Your task to perform on an android device: What's the weather today? Image 0: 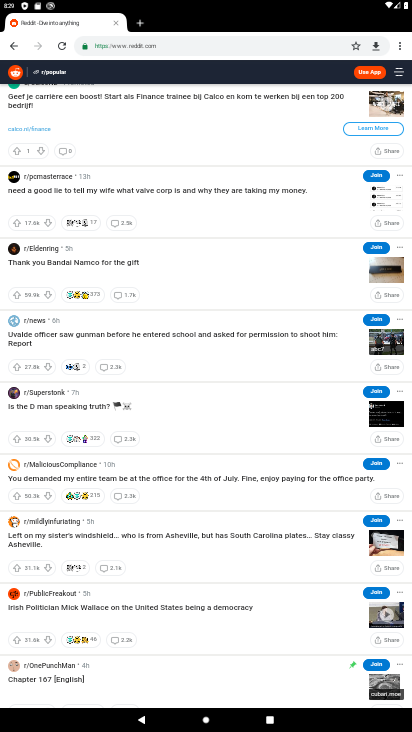
Step 0: press home button
Your task to perform on an android device: What's the weather today? Image 1: 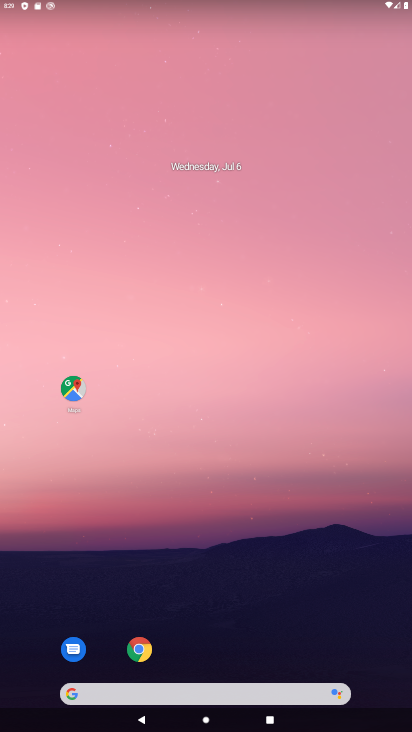
Step 1: drag from (215, 658) to (252, 77)
Your task to perform on an android device: What's the weather today? Image 2: 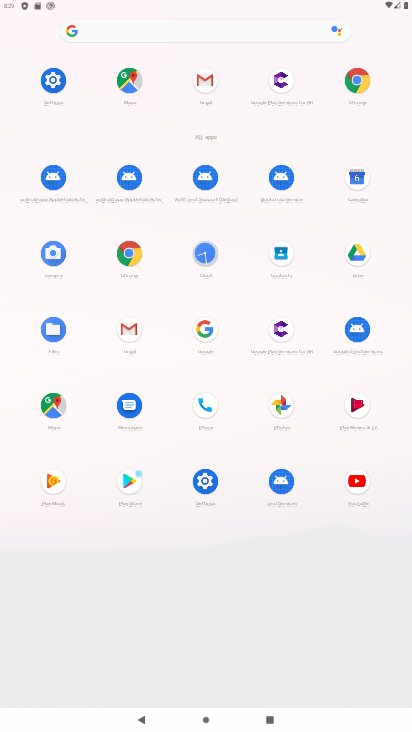
Step 2: press back button
Your task to perform on an android device: What's the weather today? Image 3: 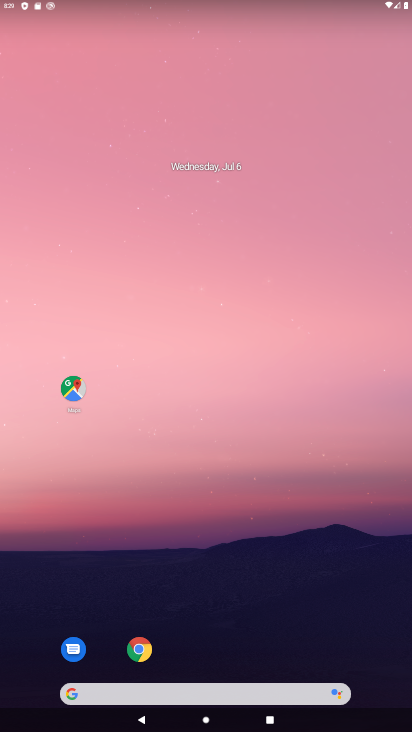
Step 3: drag from (18, 277) to (366, 279)
Your task to perform on an android device: What's the weather today? Image 4: 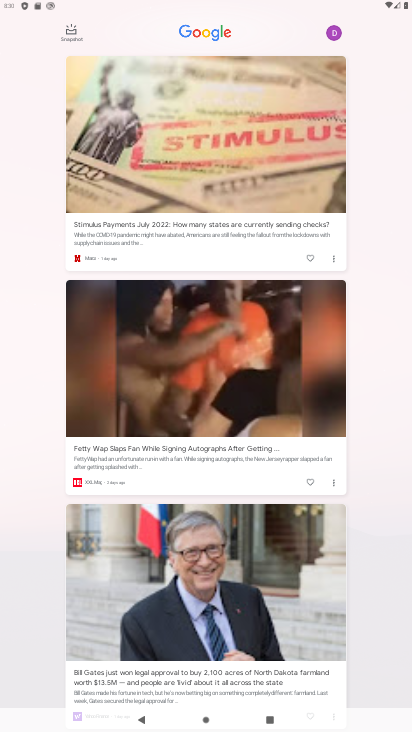
Step 4: press back button
Your task to perform on an android device: What's the weather today? Image 5: 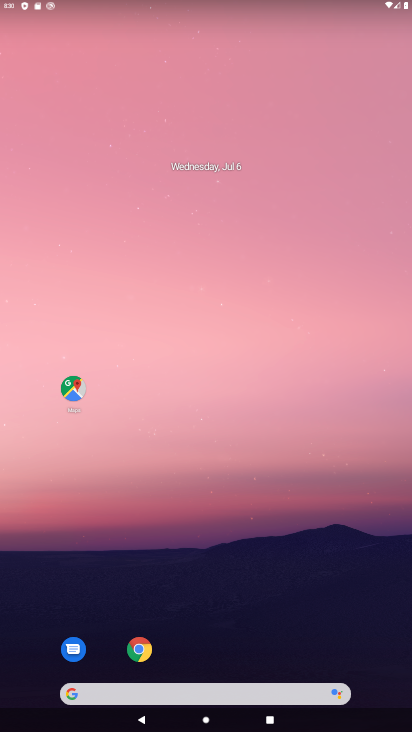
Step 5: click (127, 691)
Your task to perform on an android device: What's the weather today? Image 6: 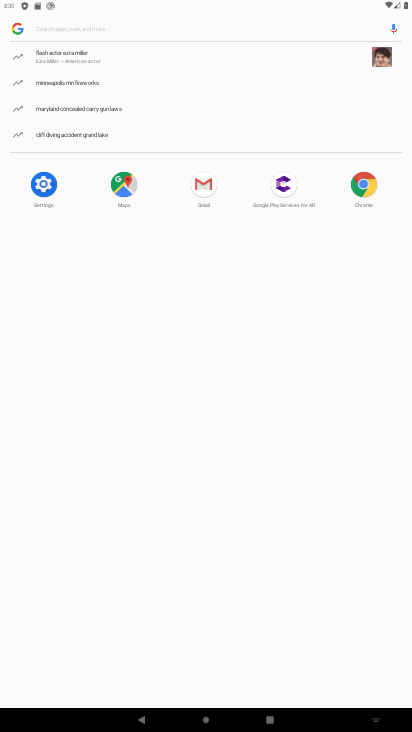
Step 6: type "weather"
Your task to perform on an android device: What's the weather today? Image 7: 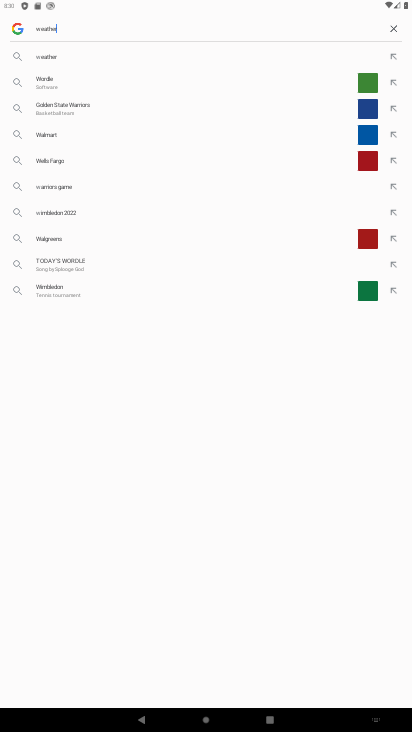
Step 7: type ""
Your task to perform on an android device: What's the weather today? Image 8: 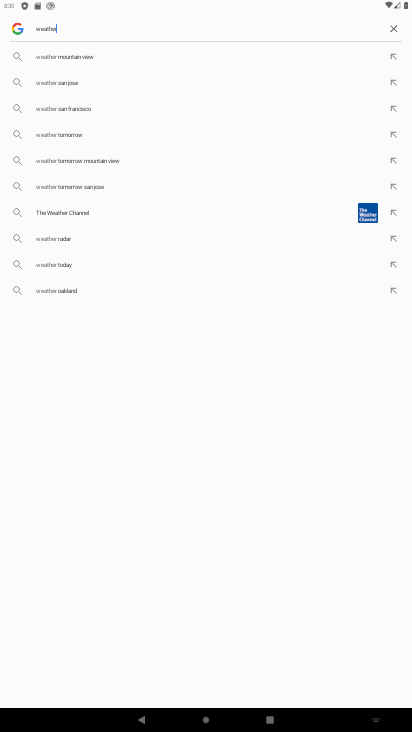
Step 8: click (69, 267)
Your task to perform on an android device: What's the weather today? Image 9: 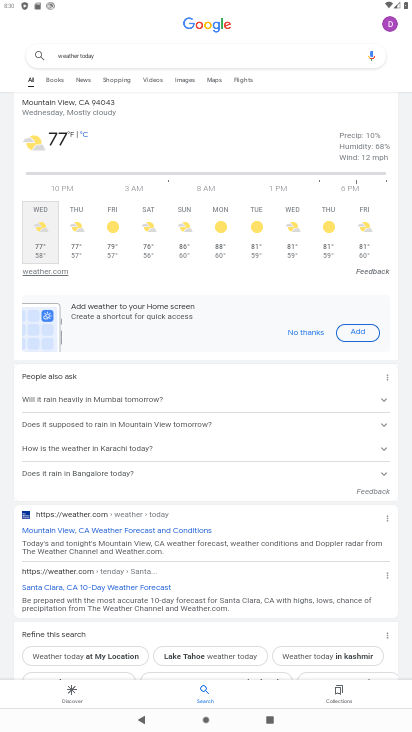
Step 9: task complete